Your task to perform on an android device: change the clock display to analog Image 0: 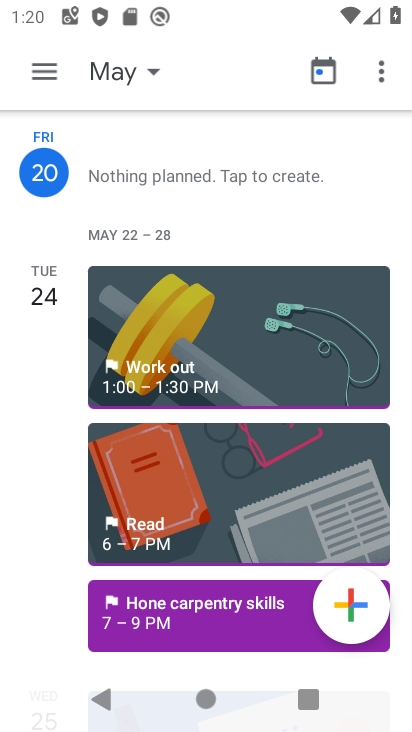
Step 0: press home button
Your task to perform on an android device: change the clock display to analog Image 1: 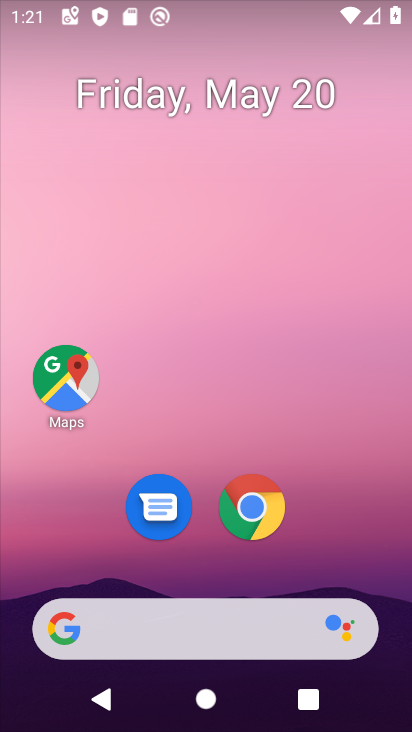
Step 1: drag from (225, 717) to (237, 161)
Your task to perform on an android device: change the clock display to analog Image 2: 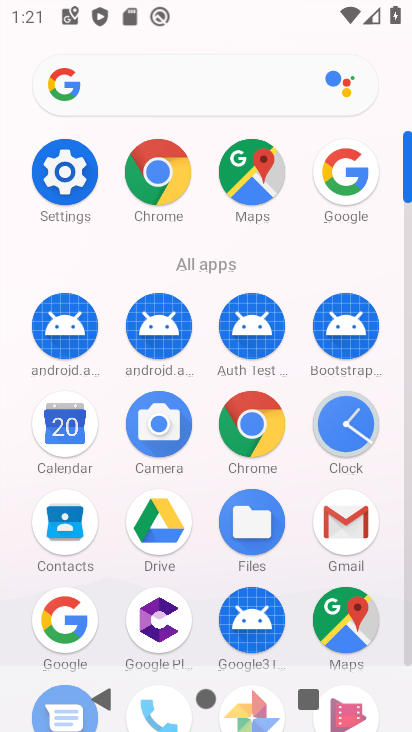
Step 2: click (343, 428)
Your task to perform on an android device: change the clock display to analog Image 3: 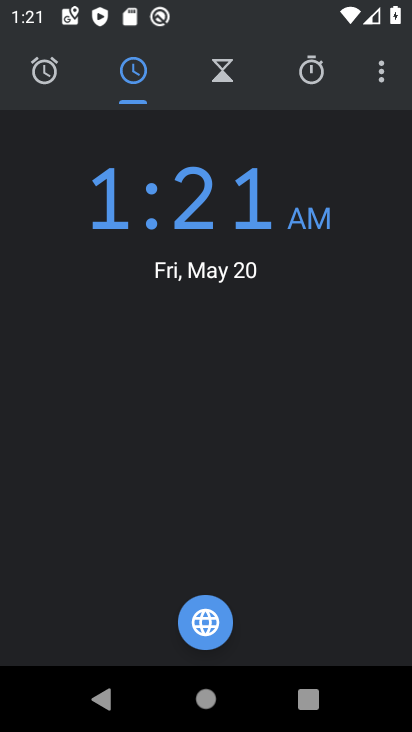
Step 3: click (381, 73)
Your task to perform on an android device: change the clock display to analog Image 4: 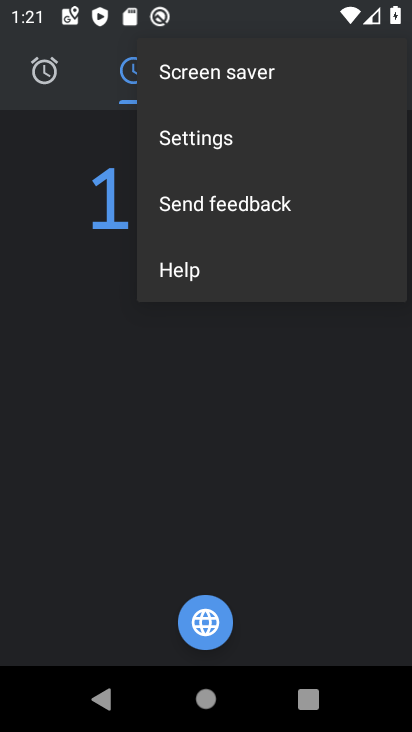
Step 4: click (196, 131)
Your task to perform on an android device: change the clock display to analog Image 5: 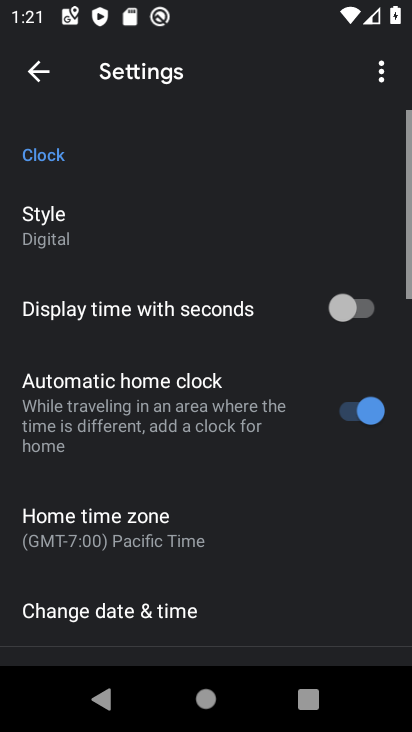
Step 5: click (53, 227)
Your task to perform on an android device: change the clock display to analog Image 6: 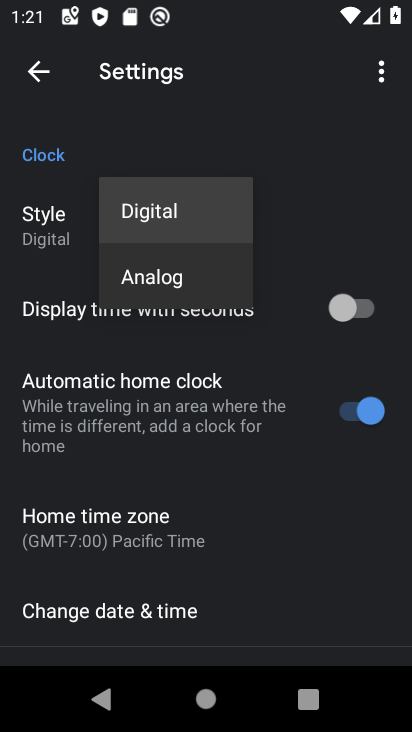
Step 6: click (152, 276)
Your task to perform on an android device: change the clock display to analog Image 7: 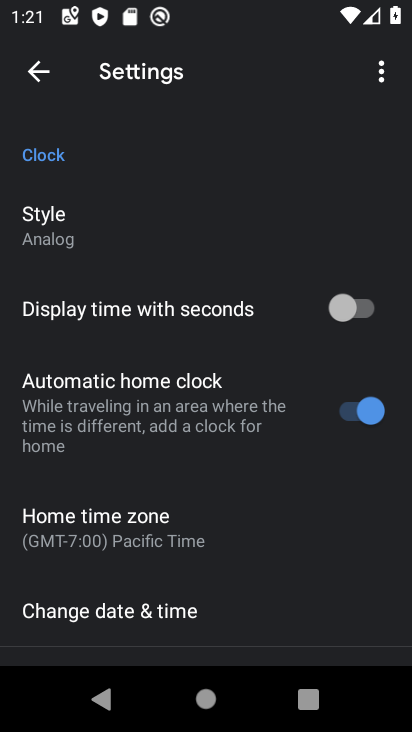
Step 7: task complete